Your task to perform on an android device: open sync settings in chrome Image 0: 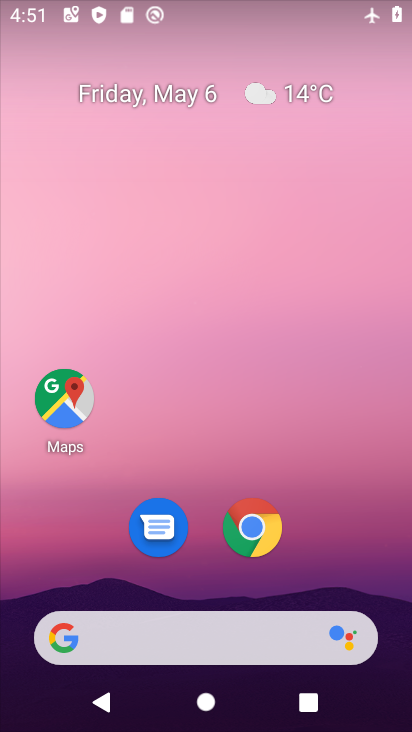
Step 0: click (251, 533)
Your task to perform on an android device: open sync settings in chrome Image 1: 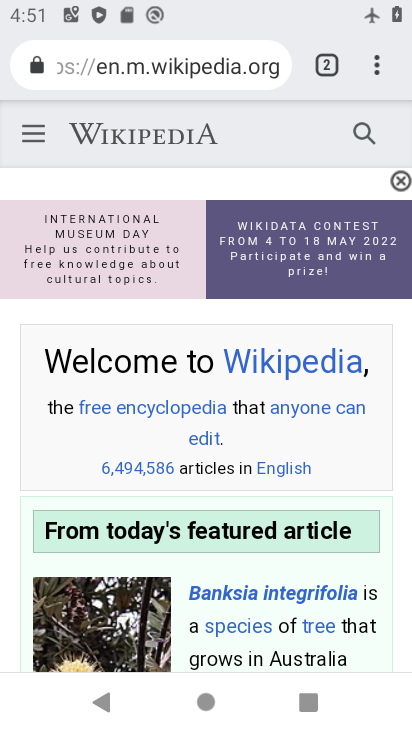
Step 1: drag from (377, 72) to (220, 569)
Your task to perform on an android device: open sync settings in chrome Image 2: 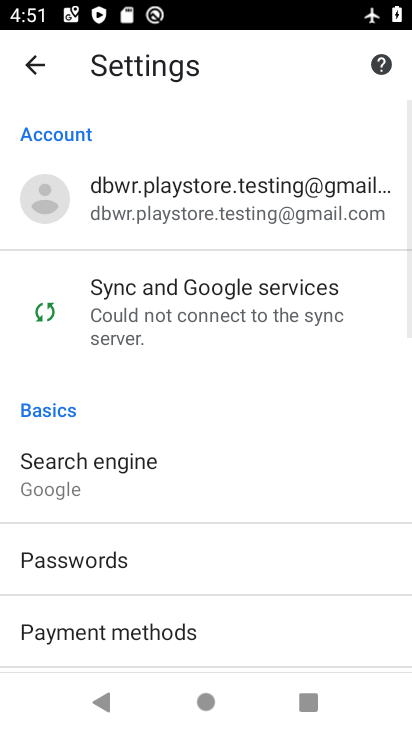
Step 2: drag from (215, 665) to (211, 307)
Your task to perform on an android device: open sync settings in chrome Image 3: 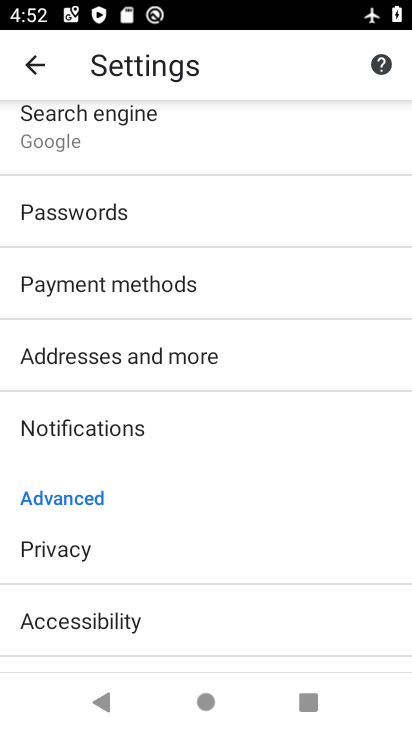
Step 3: drag from (186, 640) to (193, 357)
Your task to perform on an android device: open sync settings in chrome Image 4: 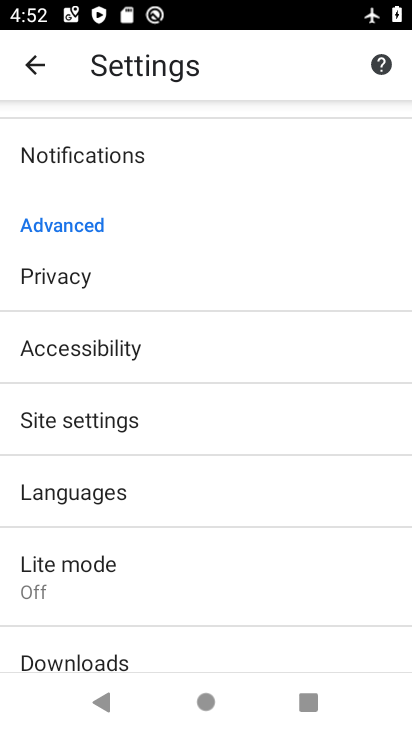
Step 4: click (88, 420)
Your task to perform on an android device: open sync settings in chrome Image 5: 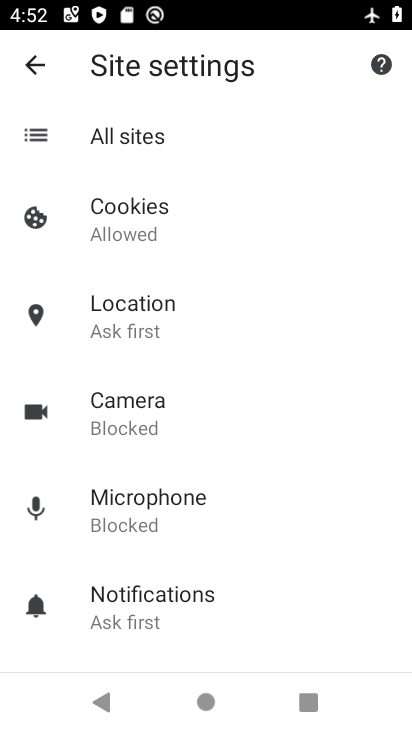
Step 5: drag from (175, 632) to (181, 195)
Your task to perform on an android device: open sync settings in chrome Image 6: 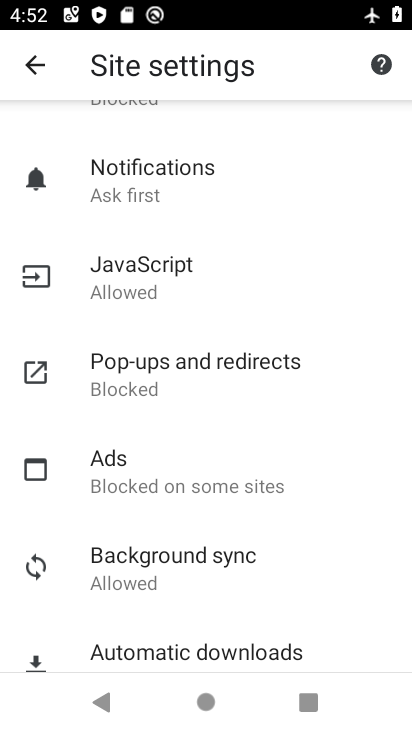
Step 6: click (155, 555)
Your task to perform on an android device: open sync settings in chrome Image 7: 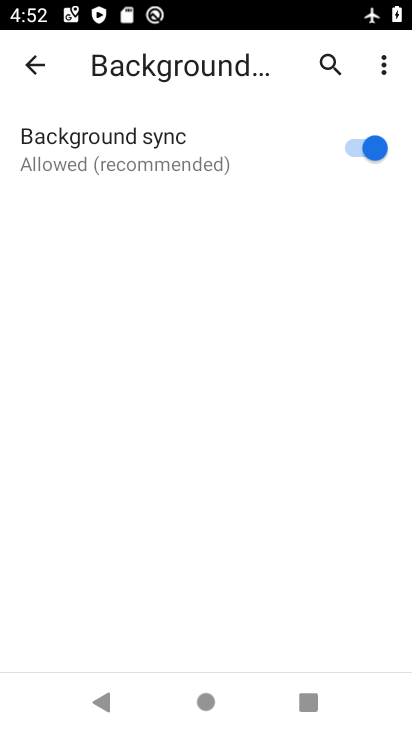
Step 7: task complete